Your task to perform on an android device: empty trash in google photos Image 0: 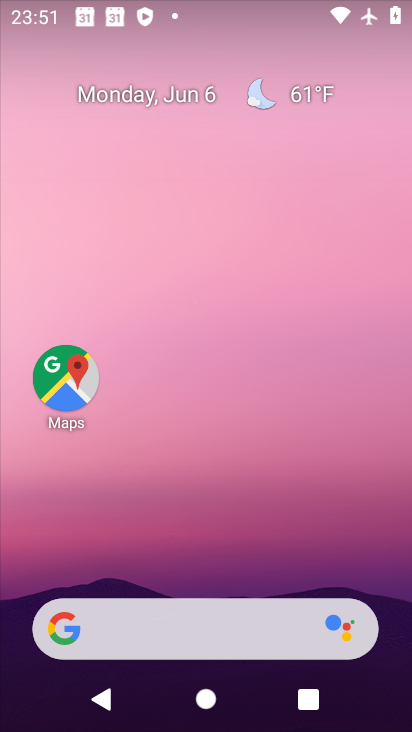
Step 0: drag from (227, 283) to (225, 120)
Your task to perform on an android device: empty trash in google photos Image 1: 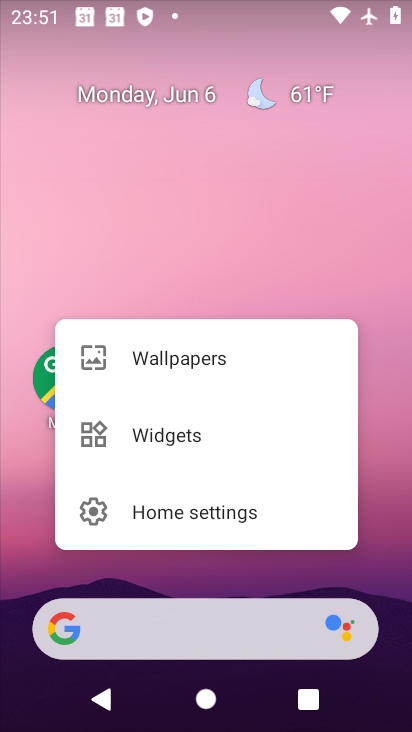
Step 1: click (354, 228)
Your task to perform on an android device: empty trash in google photos Image 2: 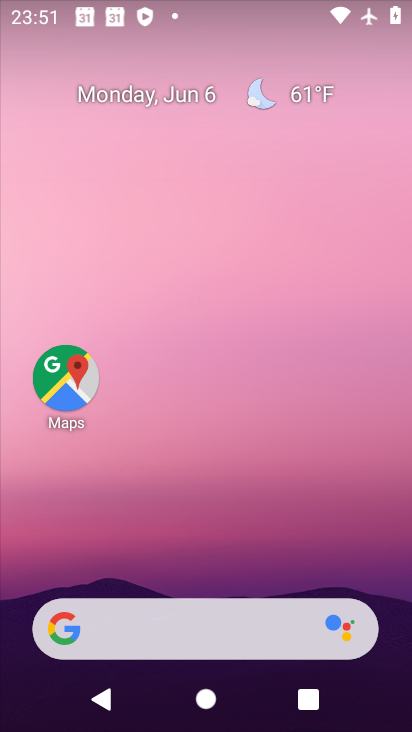
Step 2: drag from (201, 552) to (179, 90)
Your task to perform on an android device: empty trash in google photos Image 3: 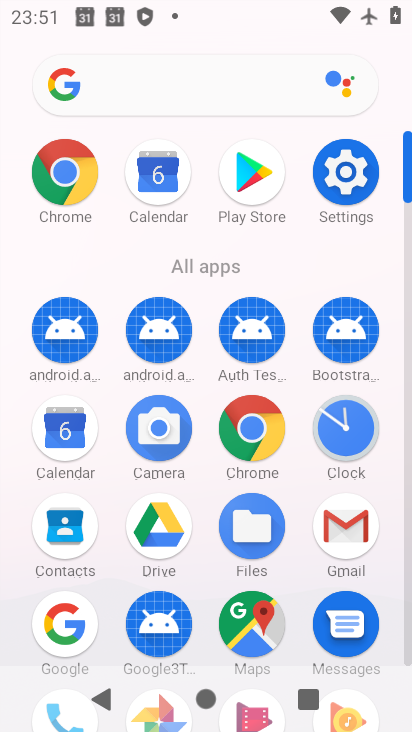
Step 3: drag from (203, 523) to (190, 166)
Your task to perform on an android device: empty trash in google photos Image 4: 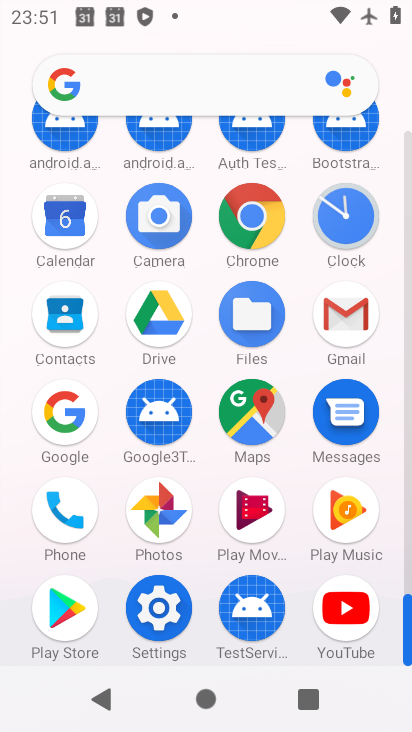
Step 4: click (160, 509)
Your task to perform on an android device: empty trash in google photos Image 5: 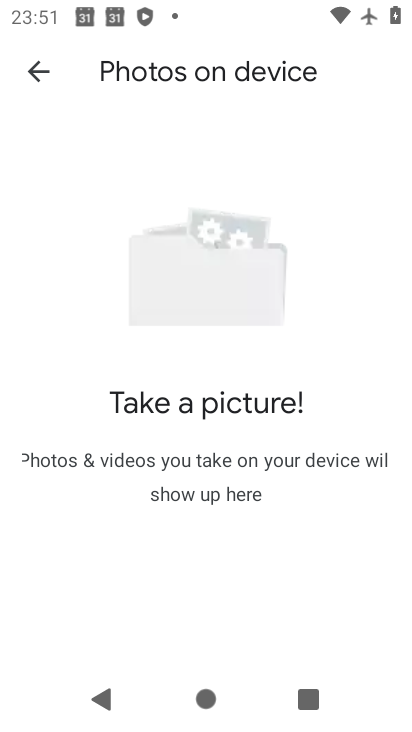
Step 5: press back button
Your task to perform on an android device: empty trash in google photos Image 6: 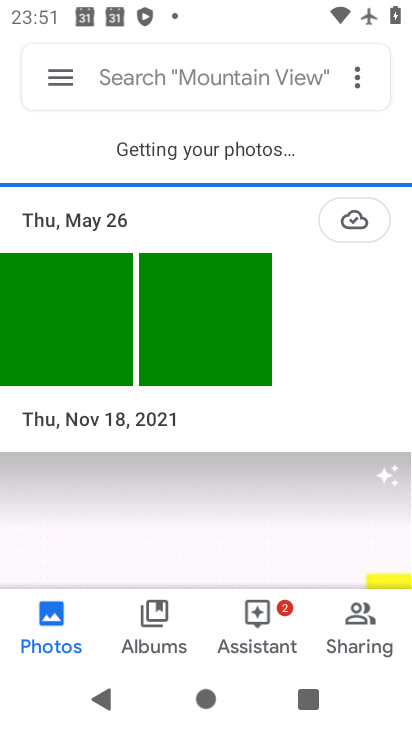
Step 6: click (56, 73)
Your task to perform on an android device: empty trash in google photos Image 7: 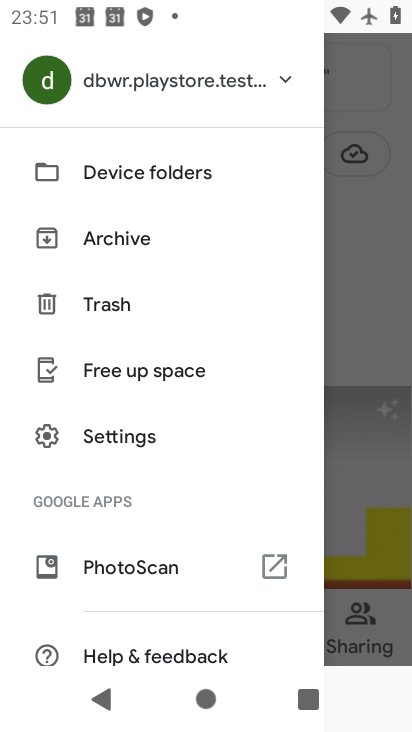
Step 7: click (148, 301)
Your task to perform on an android device: empty trash in google photos Image 8: 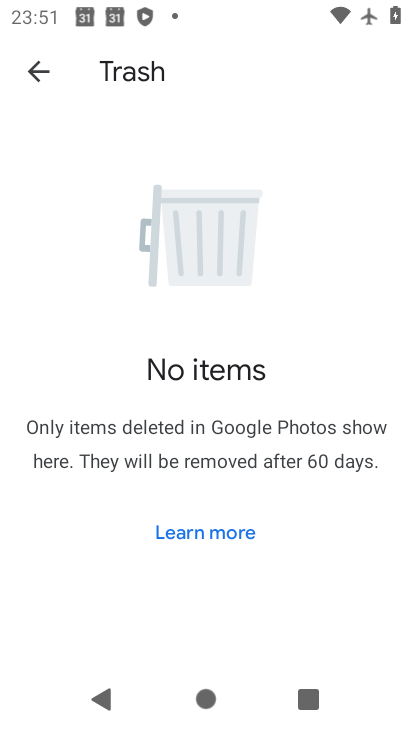
Step 8: task complete